Your task to perform on an android device: Show me the best 1080p monitor on Target.com Image 0: 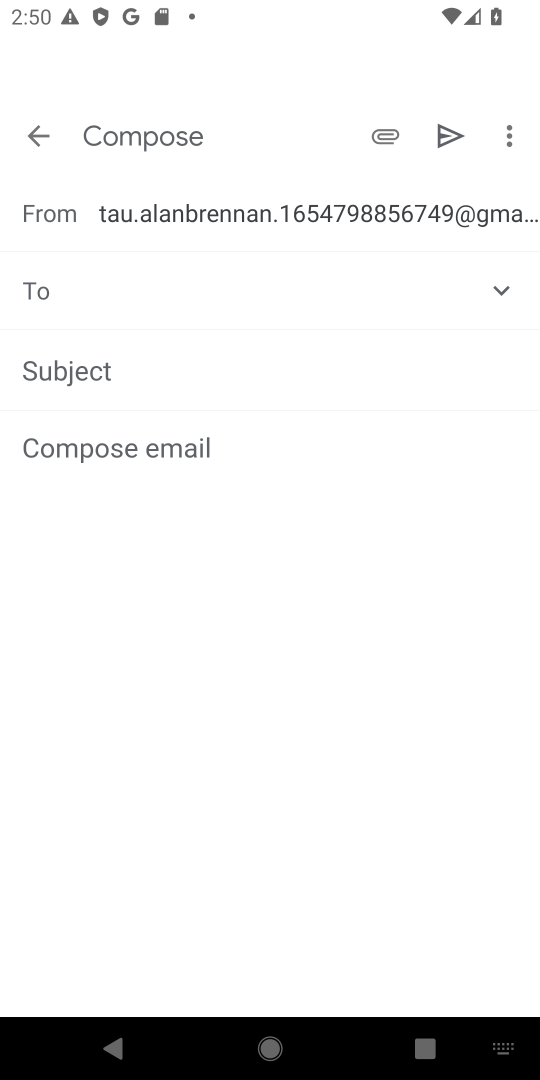
Step 0: press home button
Your task to perform on an android device: Show me the best 1080p monitor on Target.com Image 1: 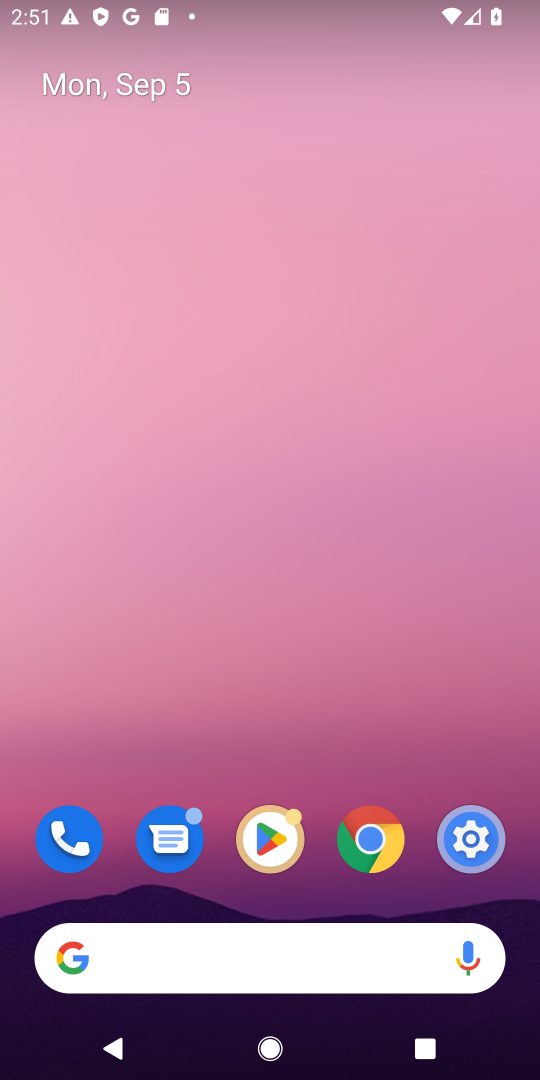
Step 1: click (316, 950)
Your task to perform on an android device: Show me the best 1080p monitor on Target.com Image 2: 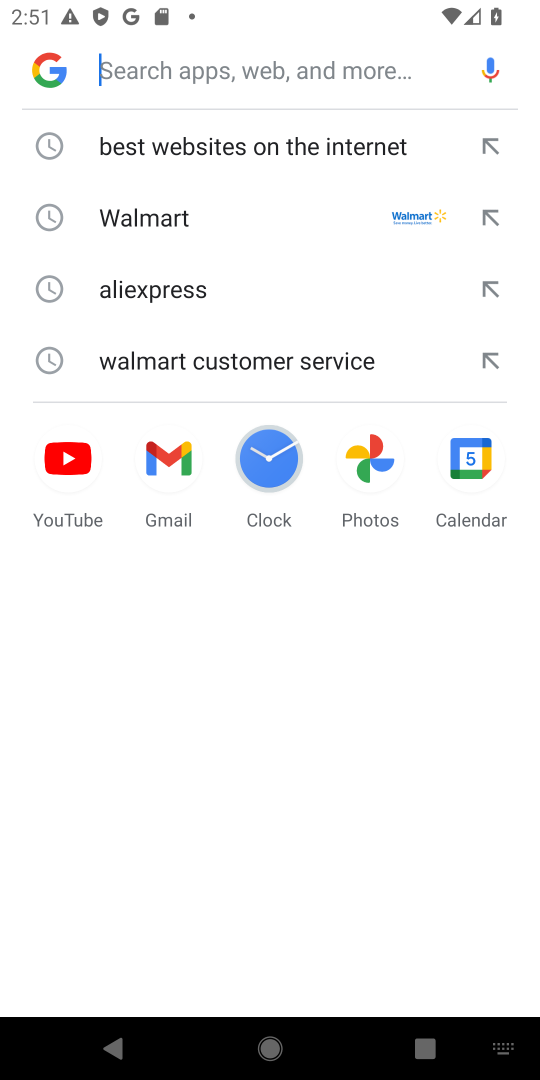
Step 2: type "target.com"
Your task to perform on an android device: Show me the best 1080p monitor on Target.com Image 3: 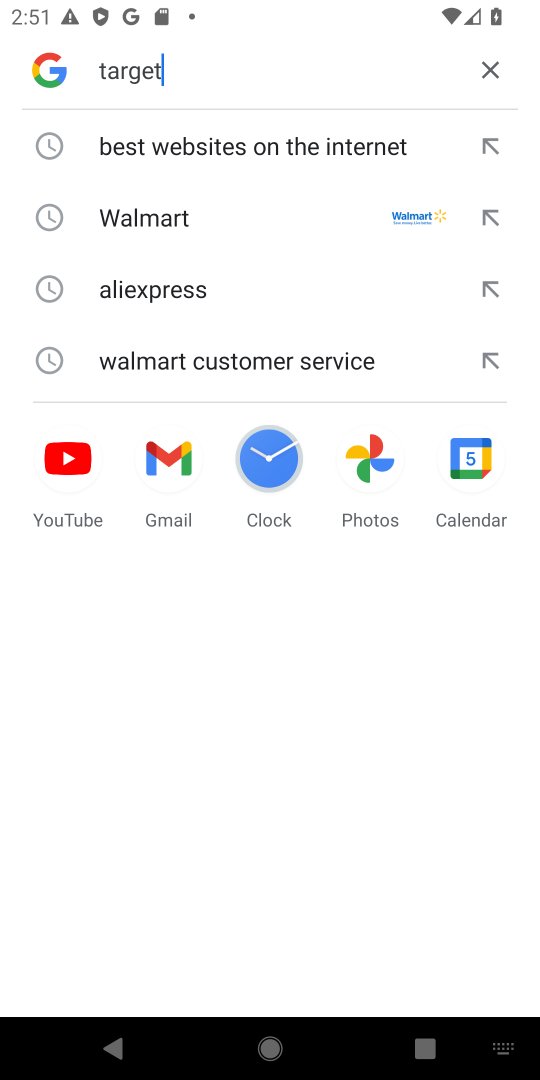
Step 3: type ""
Your task to perform on an android device: Show me the best 1080p monitor on Target.com Image 4: 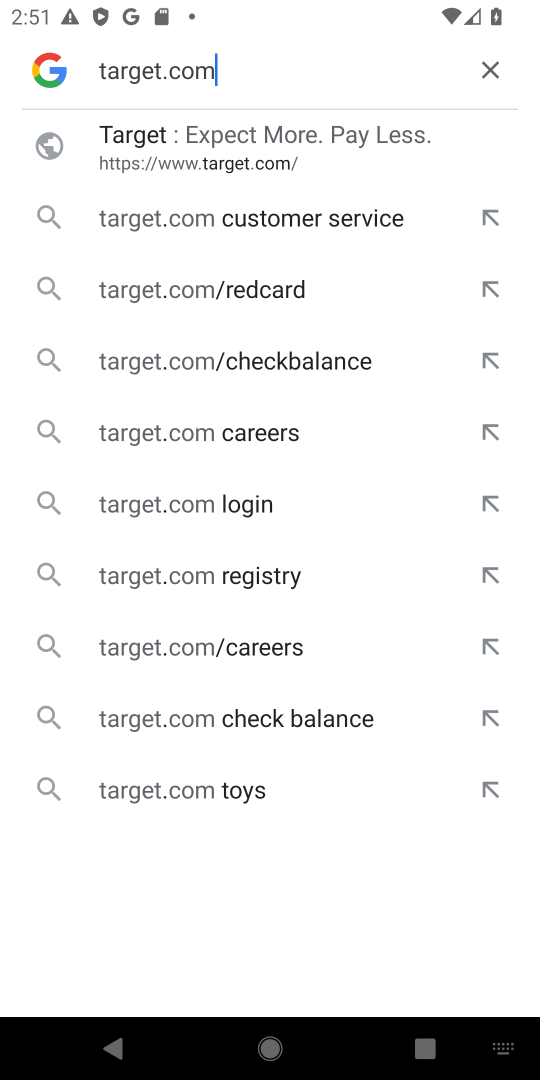
Step 4: click (236, 173)
Your task to perform on an android device: Show me the best 1080p monitor on Target.com Image 5: 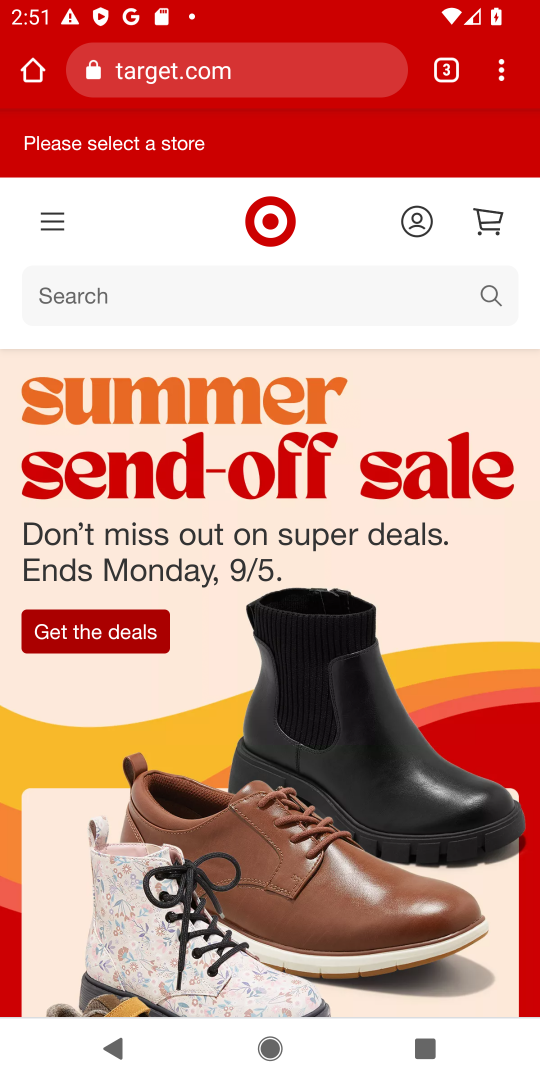
Step 5: click (202, 302)
Your task to perform on an android device: Show me the best 1080p monitor on Target.com Image 6: 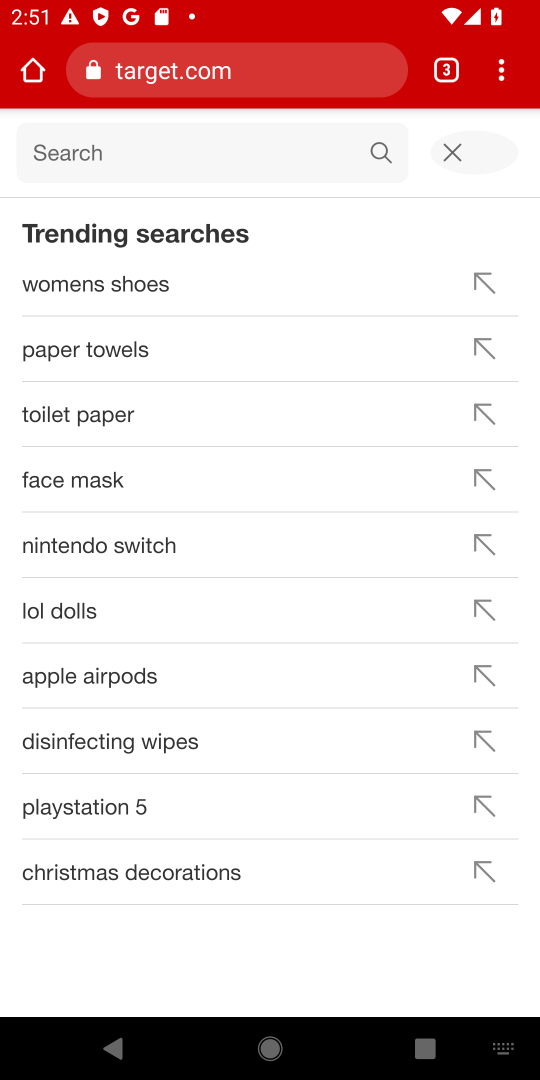
Step 6: type "1080p monitor"
Your task to perform on an android device: Show me the best 1080p monitor on Target.com Image 7: 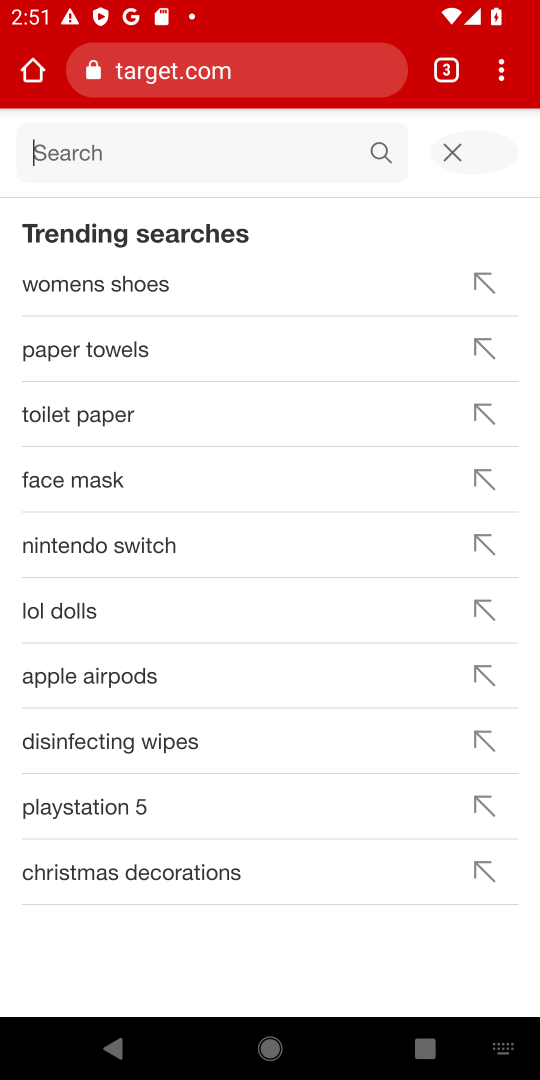
Step 7: type ""
Your task to perform on an android device: Show me the best 1080p monitor on Target.com Image 8: 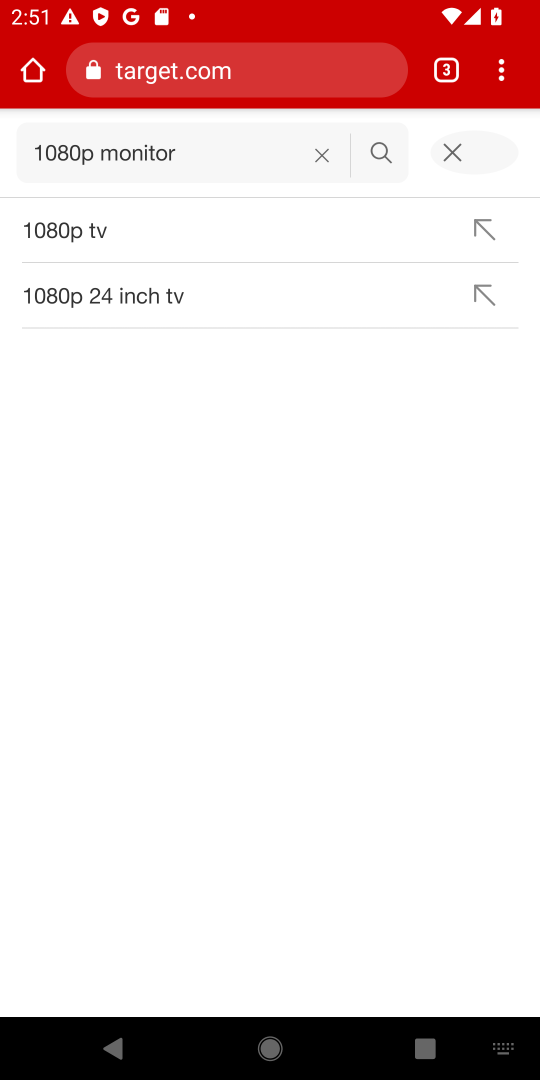
Step 8: press enter
Your task to perform on an android device: Show me the best 1080p monitor on Target.com Image 9: 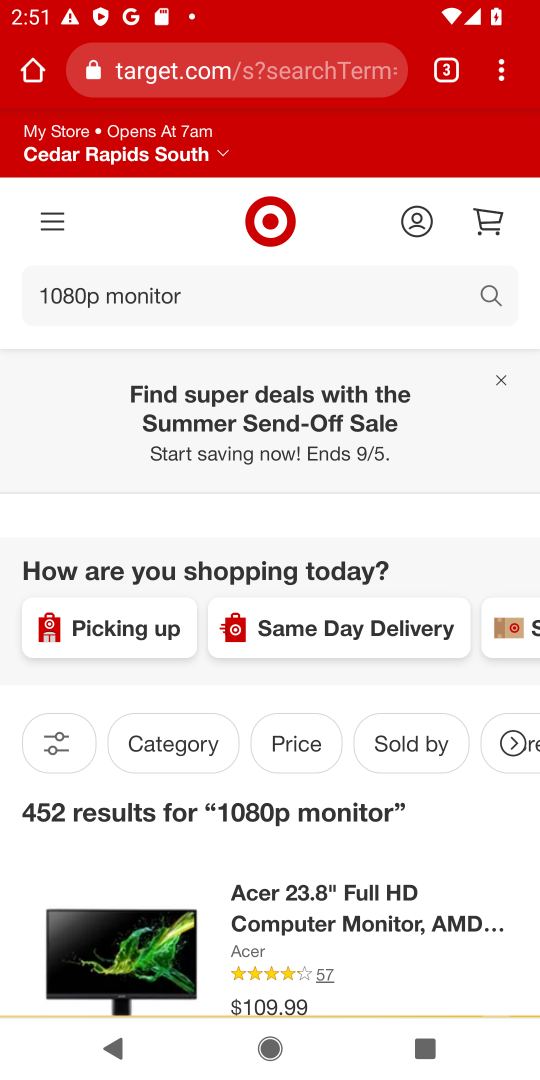
Step 9: drag from (17, 230) to (105, 34)
Your task to perform on an android device: Show me the best 1080p monitor on Target.com Image 10: 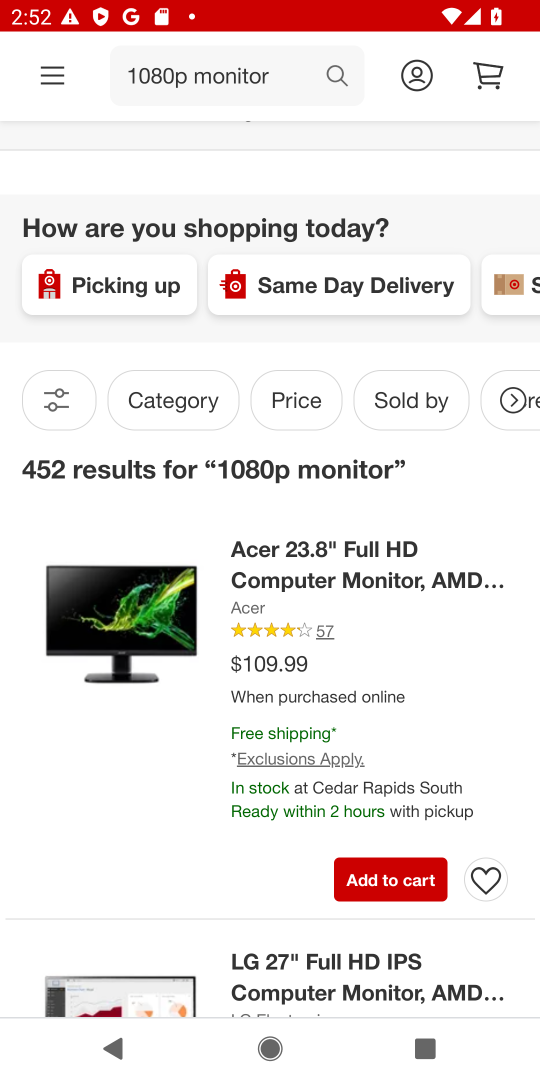
Step 10: click (61, 407)
Your task to perform on an android device: Show me the best 1080p monitor on Target.com Image 11: 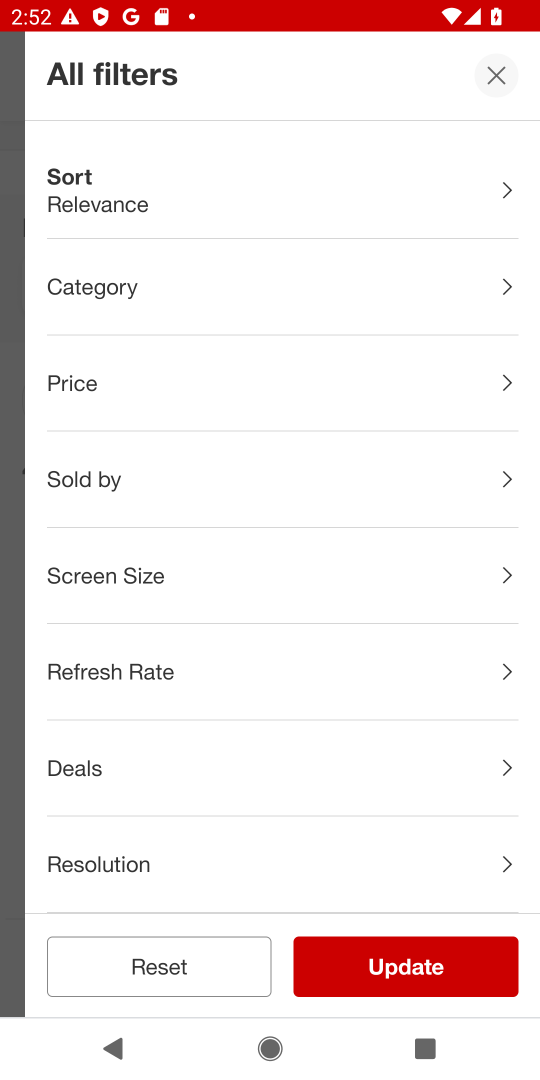
Step 11: click (501, 287)
Your task to perform on an android device: Show me the best 1080p monitor on Target.com Image 12: 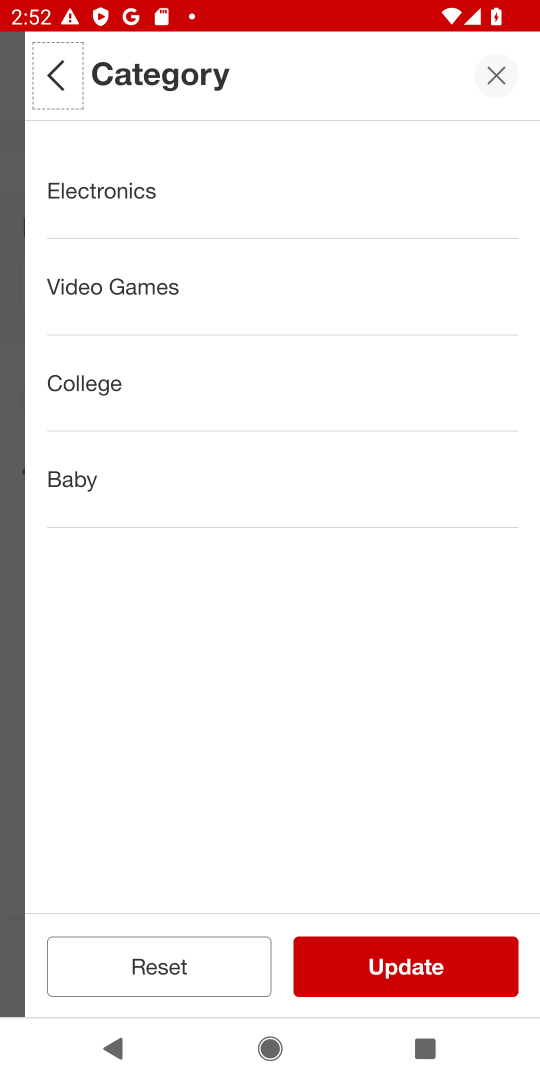
Step 12: click (495, 197)
Your task to perform on an android device: Show me the best 1080p monitor on Target.com Image 13: 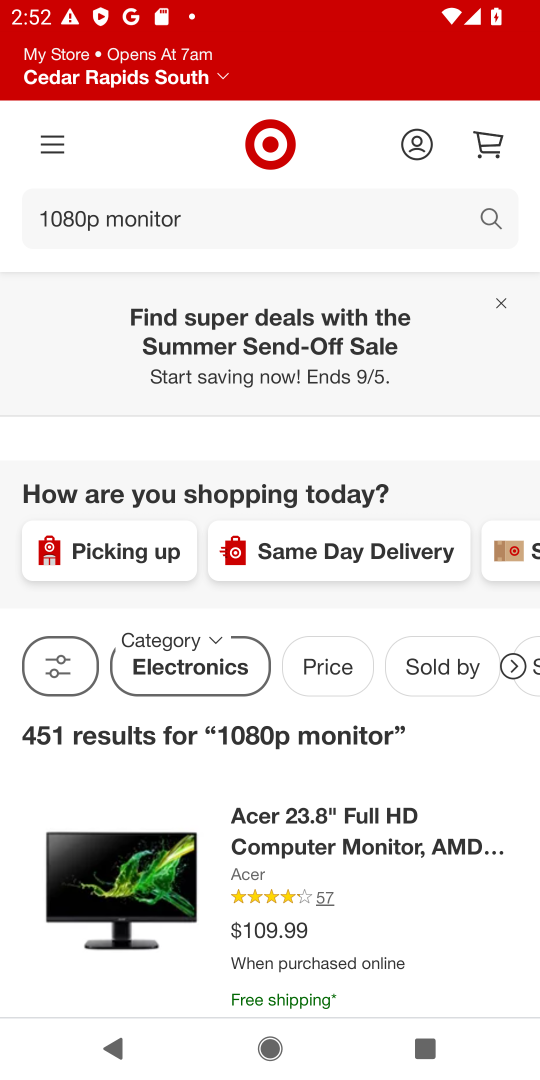
Step 13: click (51, 73)
Your task to perform on an android device: Show me the best 1080p monitor on Target.com Image 14: 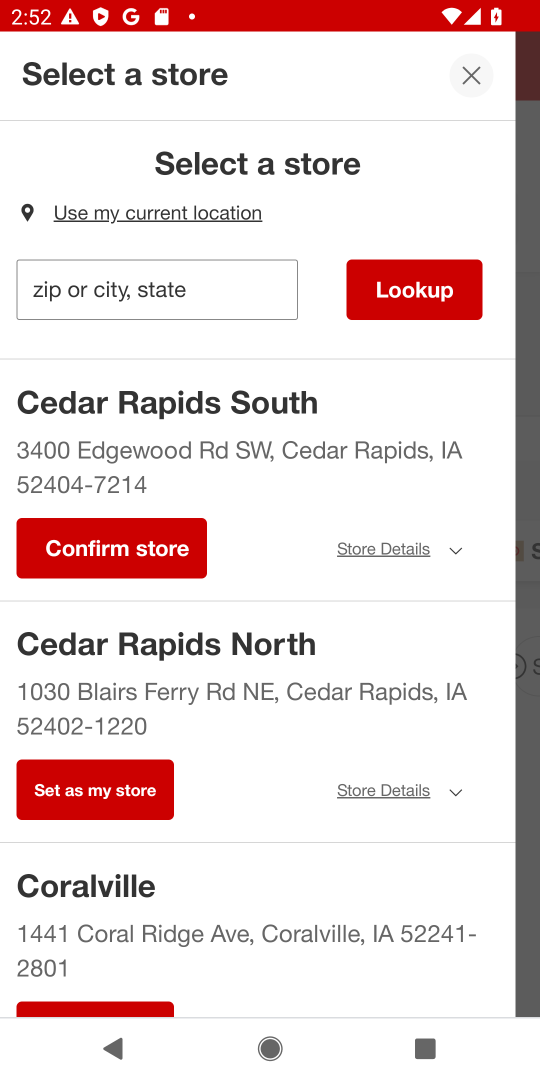
Step 14: task complete